Your task to perform on an android device: turn on bluetooth scan Image 0: 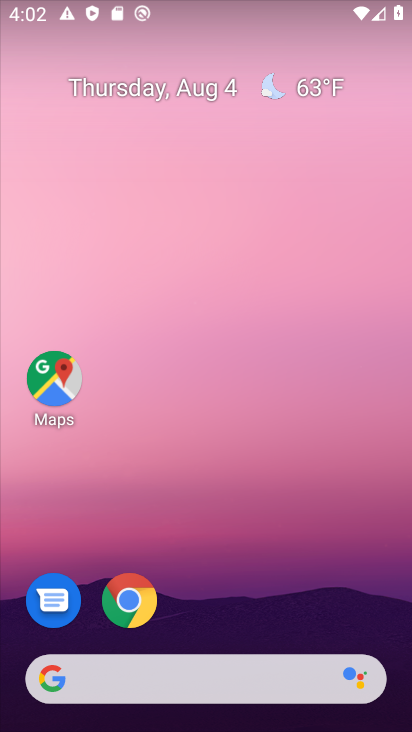
Step 0: drag from (255, 580) to (324, 64)
Your task to perform on an android device: turn on bluetooth scan Image 1: 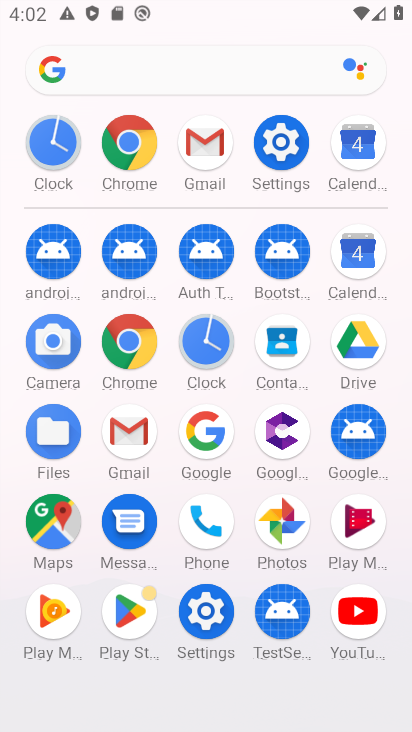
Step 1: click (278, 154)
Your task to perform on an android device: turn on bluetooth scan Image 2: 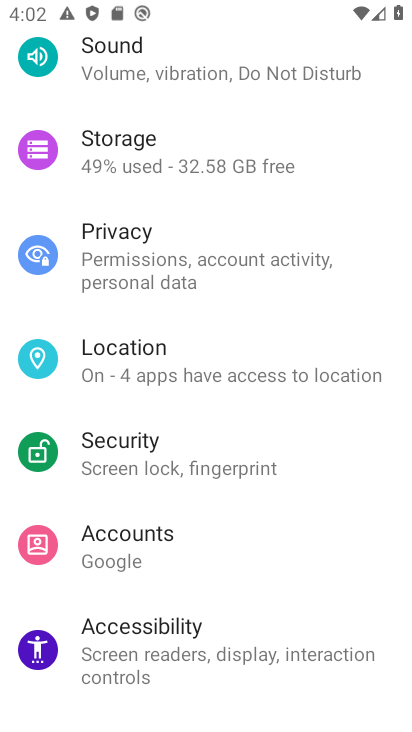
Step 2: click (256, 356)
Your task to perform on an android device: turn on bluetooth scan Image 3: 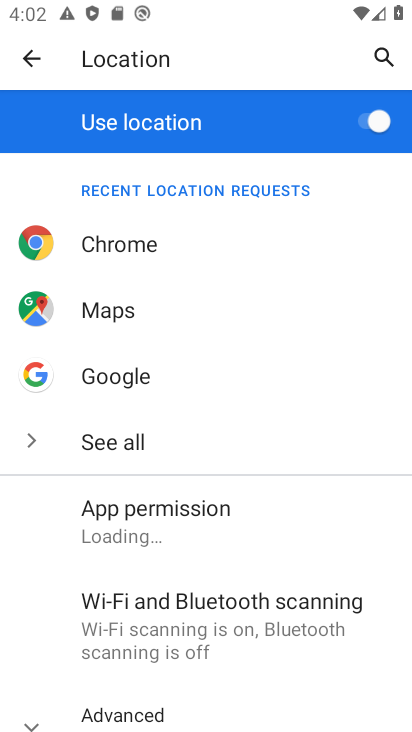
Step 3: click (221, 639)
Your task to perform on an android device: turn on bluetooth scan Image 4: 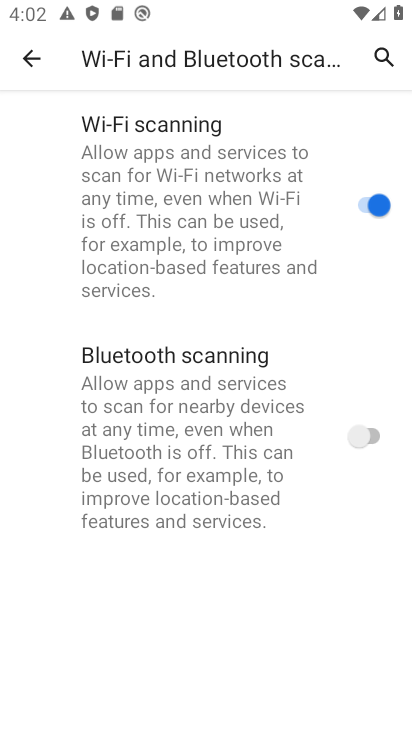
Step 4: click (354, 425)
Your task to perform on an android device: turn on bluetooth scan Image 5: 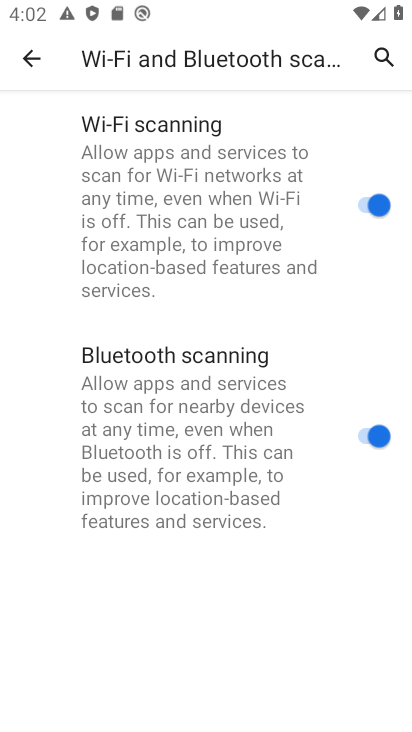
Step 5: task complete